Your task to perform on an android device: change notification settings in the gmail app Image 0: 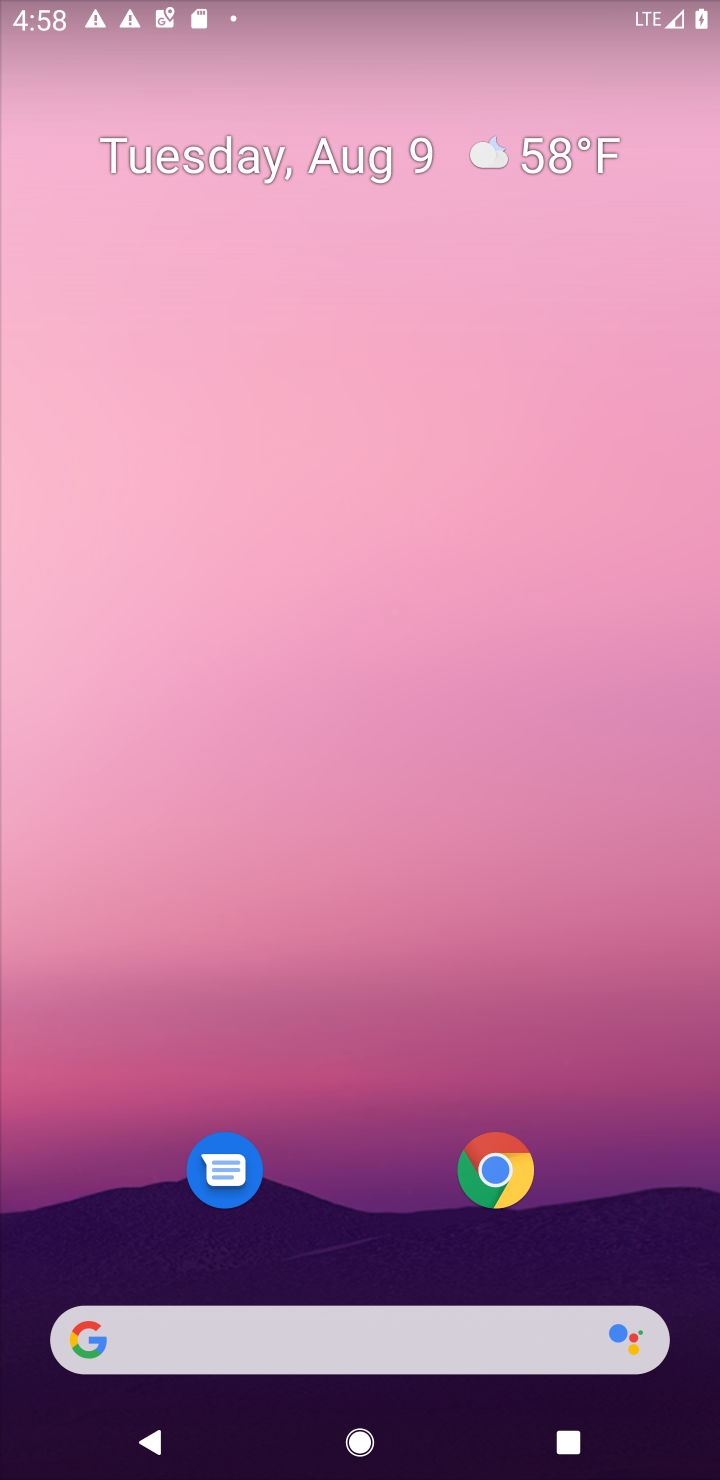
Step 0: press home button
Your task to perform on an android device: change notification settings in the gmail app Image 1: 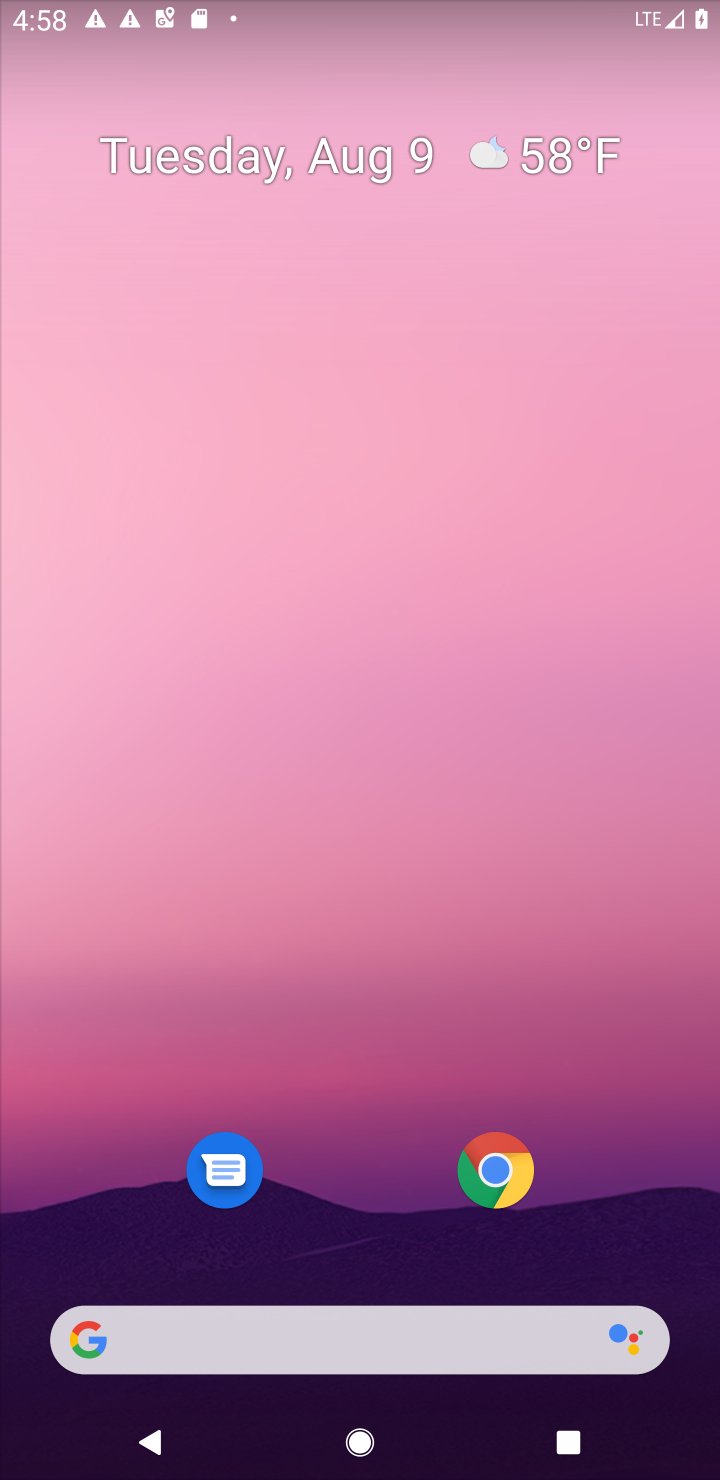
Step 1: drag from (383, 1219) to (690, 317)
Your task to perform on an android device: change notification settings in the gmail app Image 2: 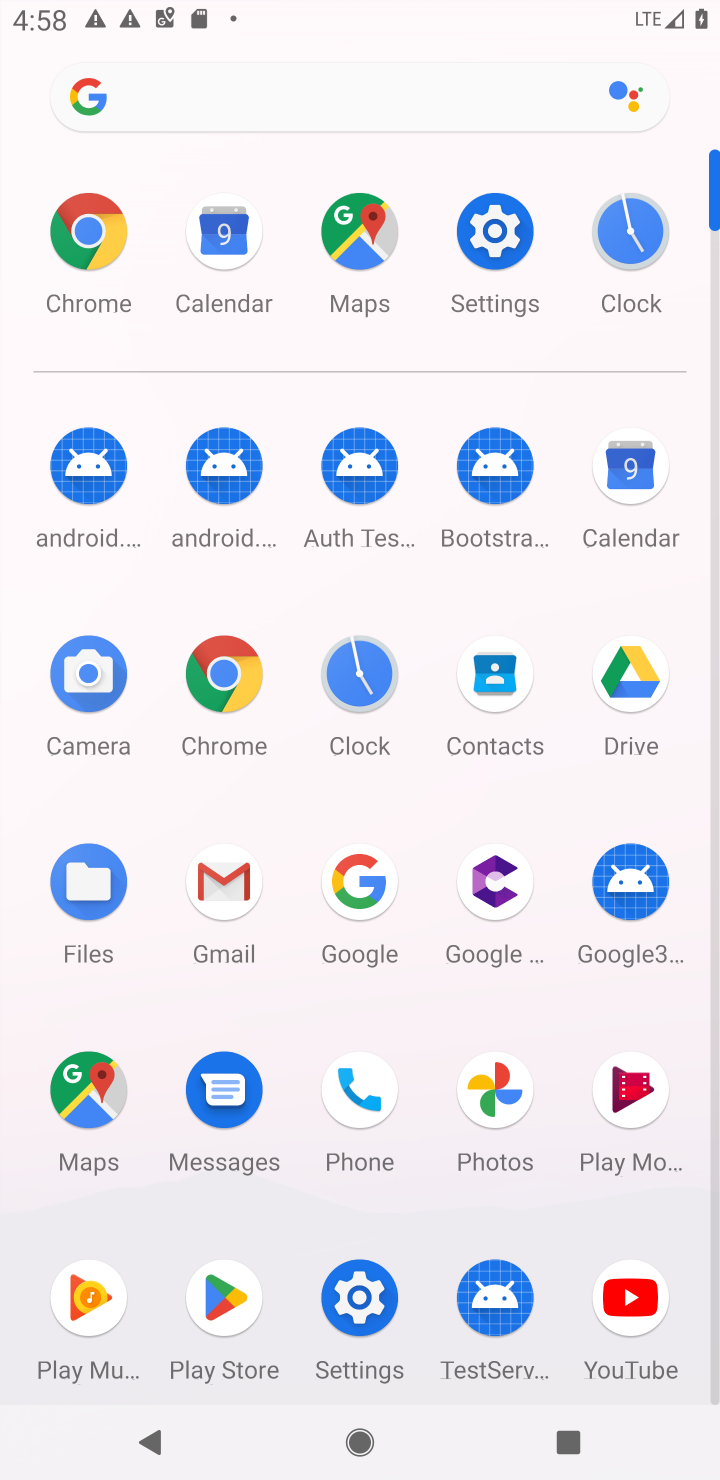
Step 2: click (219, 887)
Your task to perform on an android device: change notification settings in the gmail app Image 3: 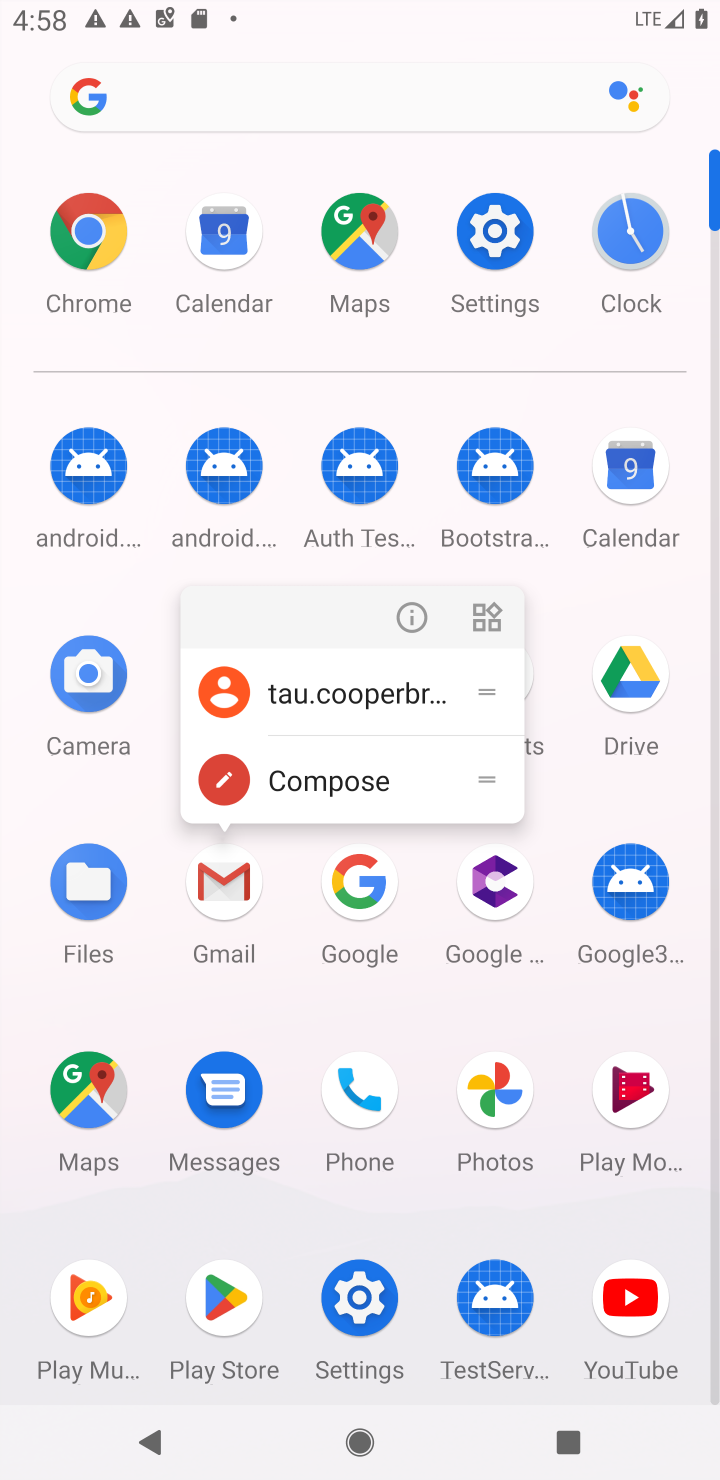
Step 3: click (219, 887)
Your task to perform on an android device: change notification settings in the gmail app Image 4: 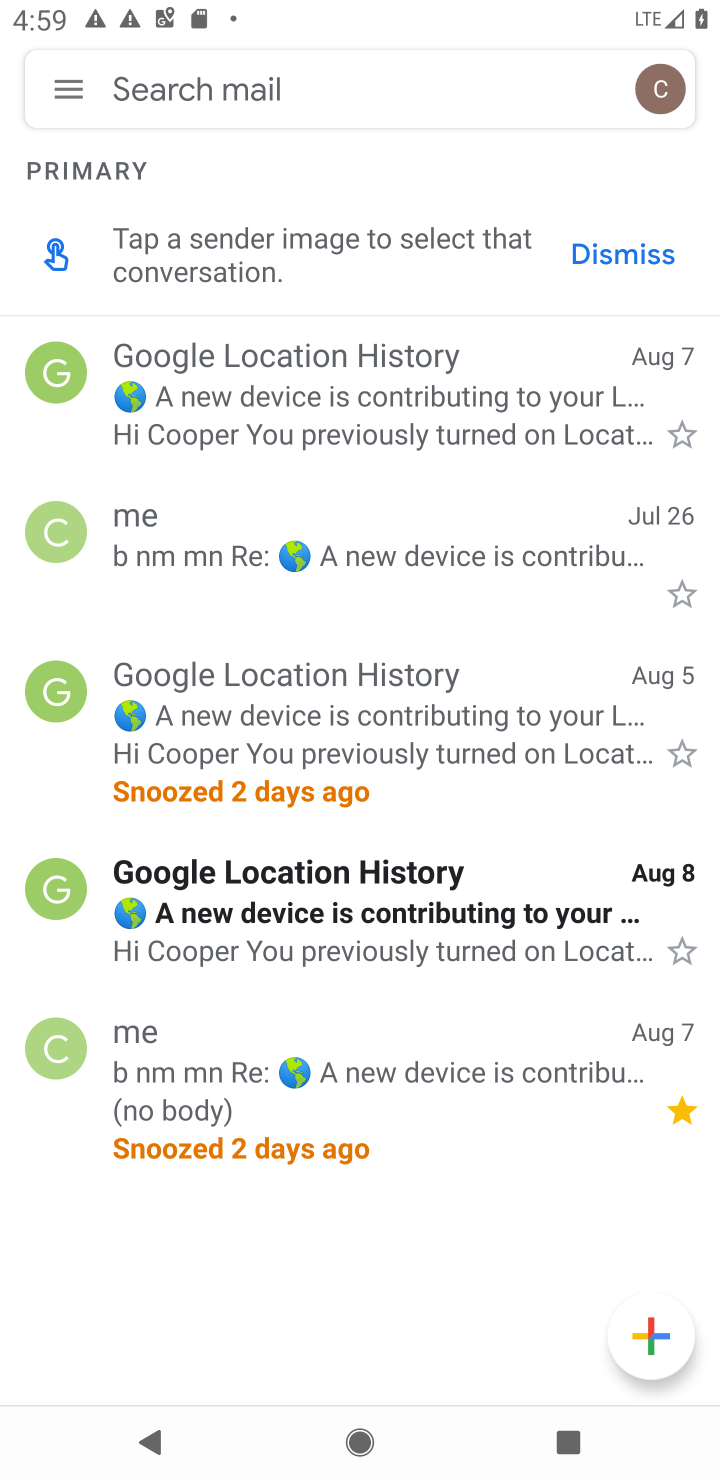
Step 4: click (655, 67)
Your task to perform on an android device: change notification settings in the gmail app Image 5: 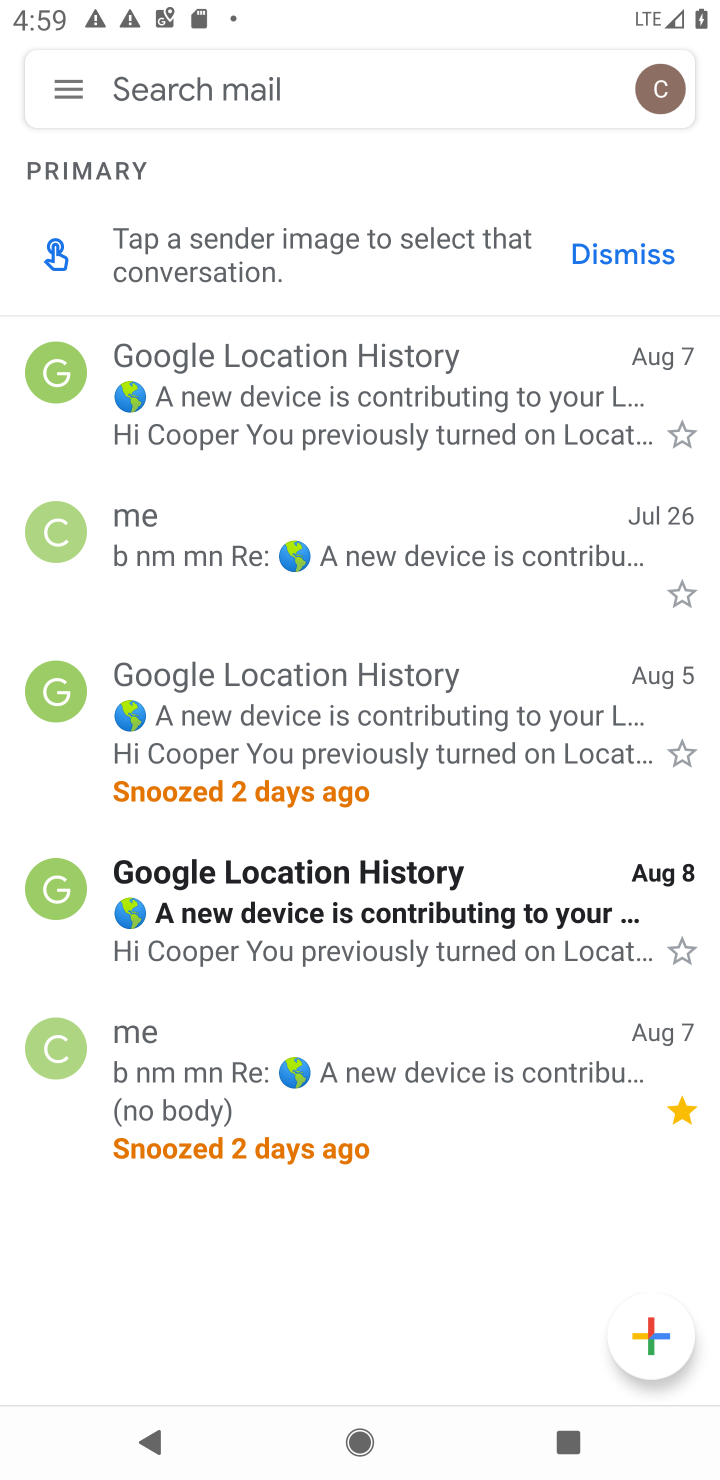
Step 5: click (671, 94)
Your task to perform on an android device: change notification settings in the gmail app Image 6: 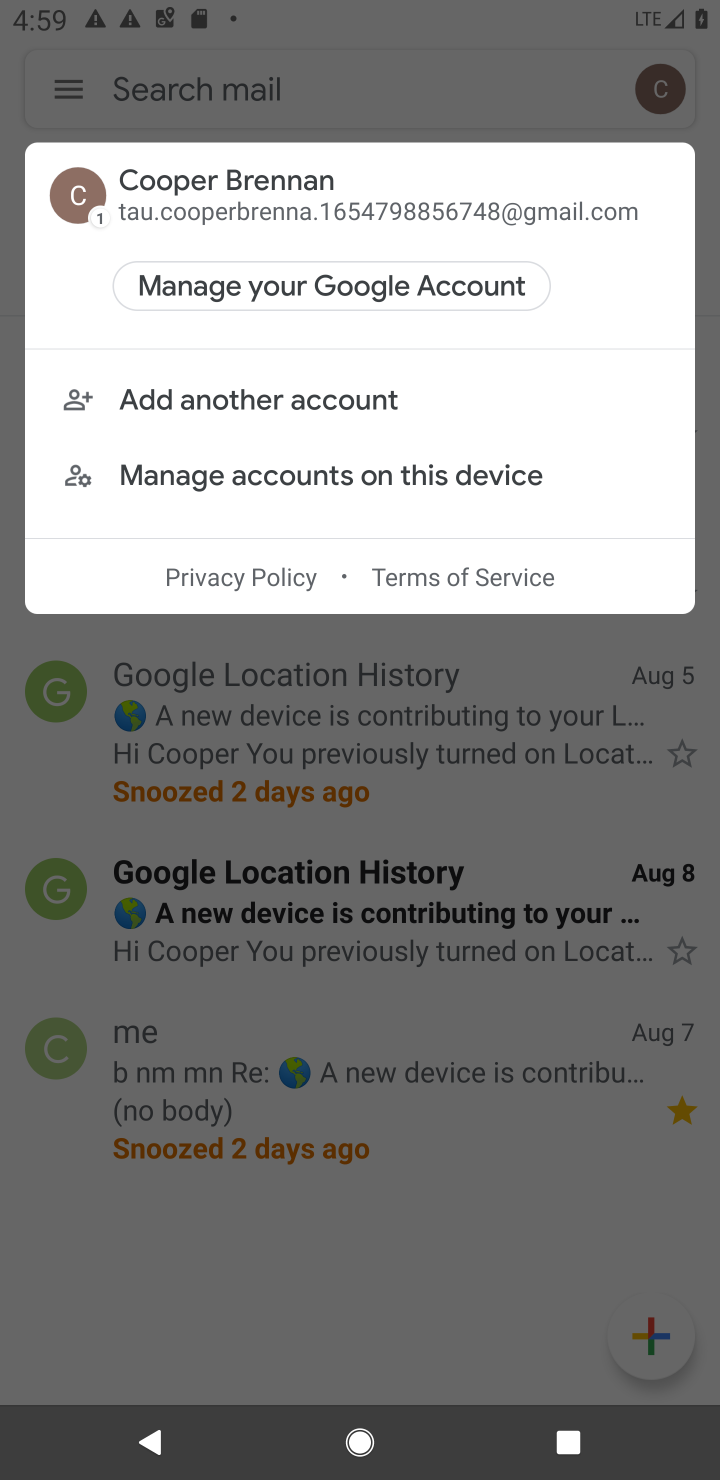
Step 6: click (76, 93)
Your task to perform on an android device: change notification settings in the gmail app Image 7: 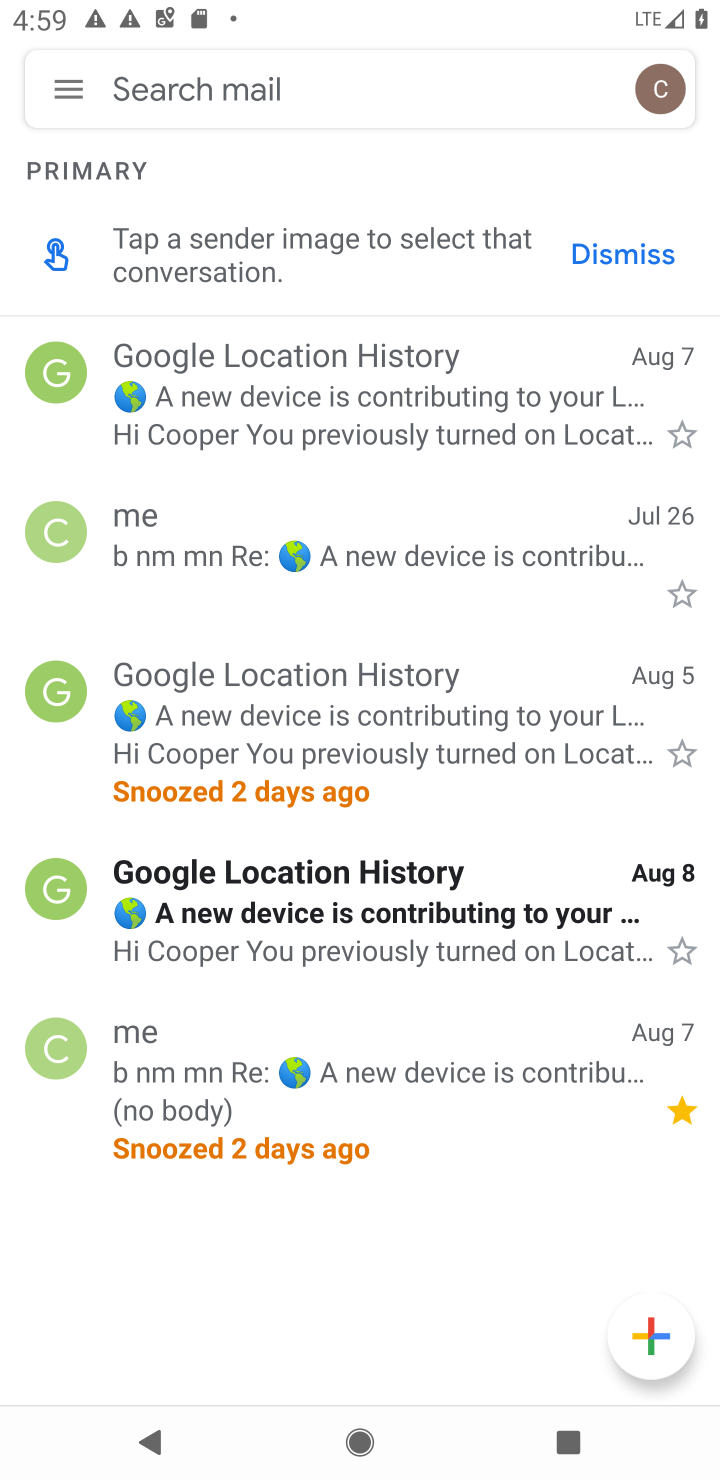
Step 7: click (104, 87)
Your task to perform on an android device: change notification settings in the gmail app Image 8: 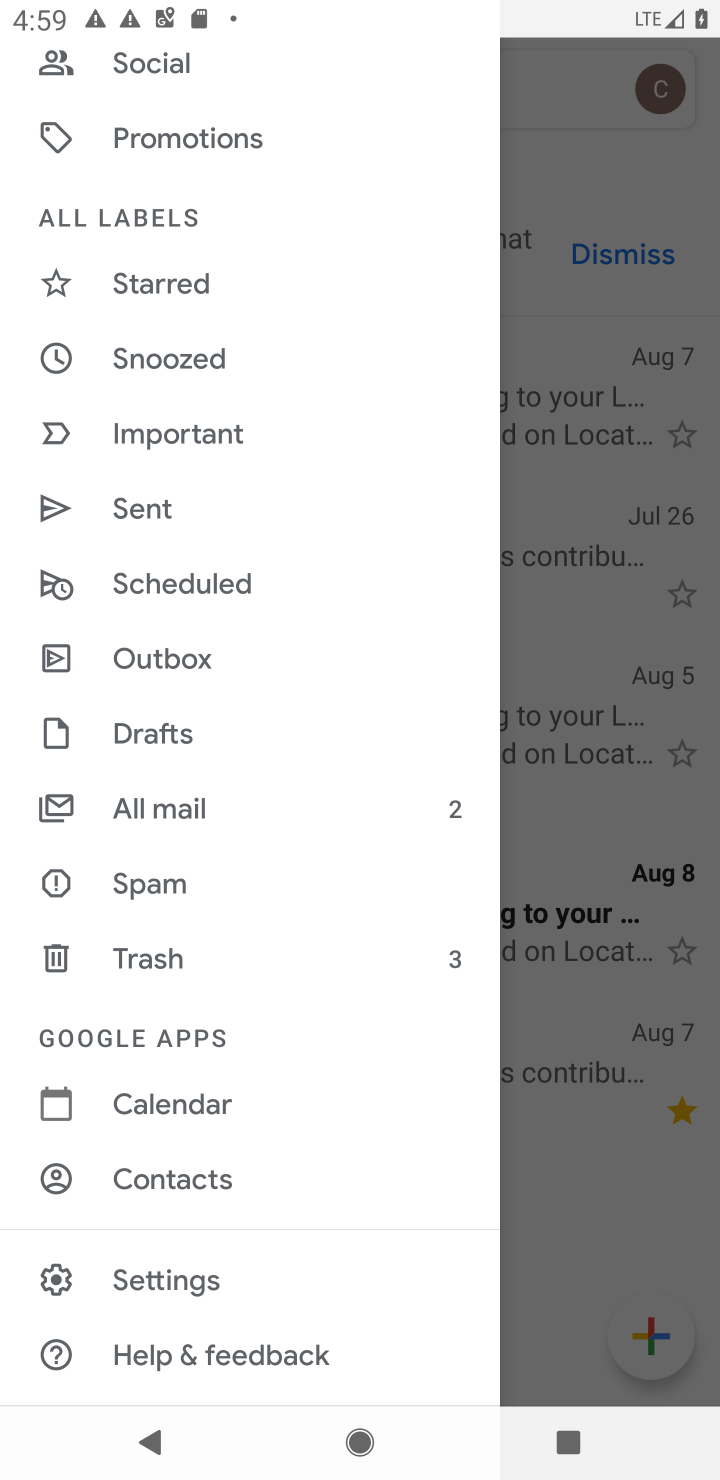
Step 8: click (163, 1278)
Your task to perform on an android device: change notification settings in the gmail app Image 9: 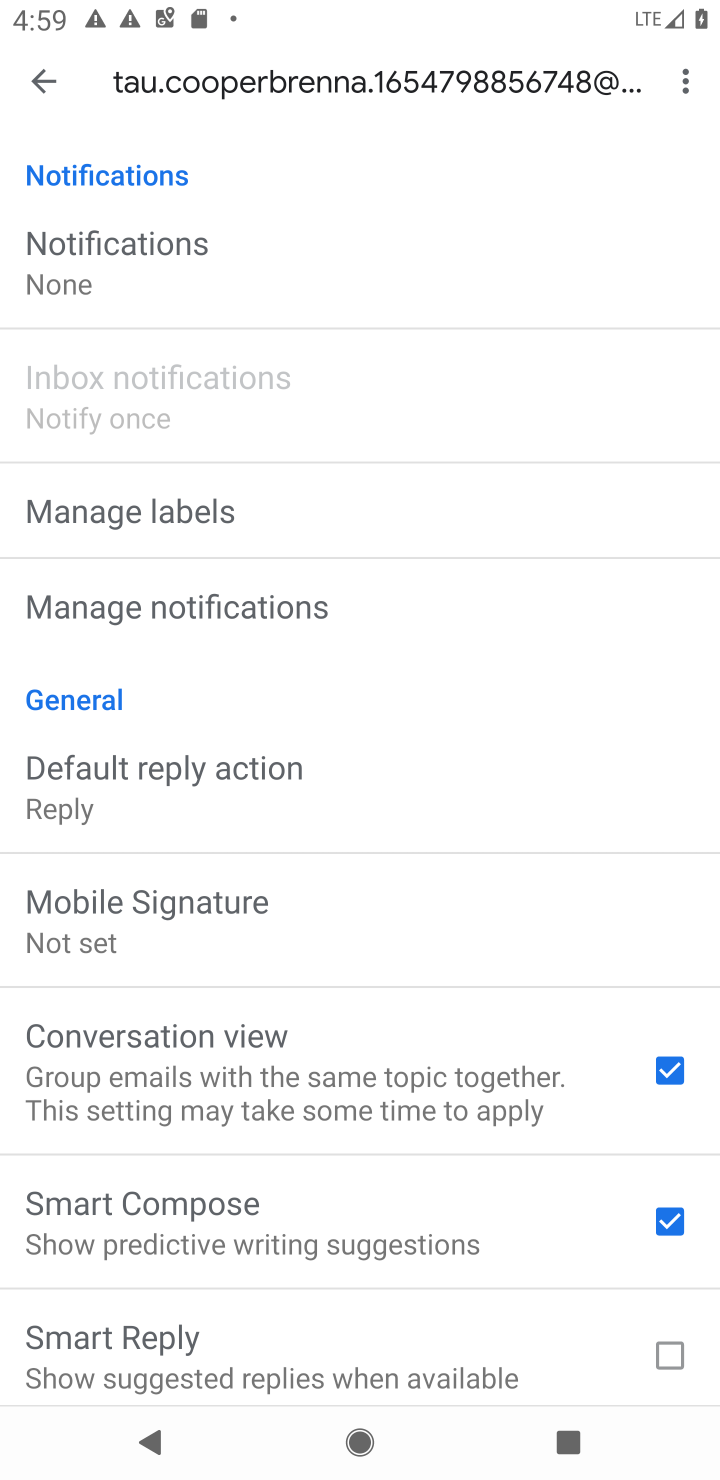
Step 9: click (167, 603)
Your task to perform on an android device: change notification settings in the gmail app Image 10: 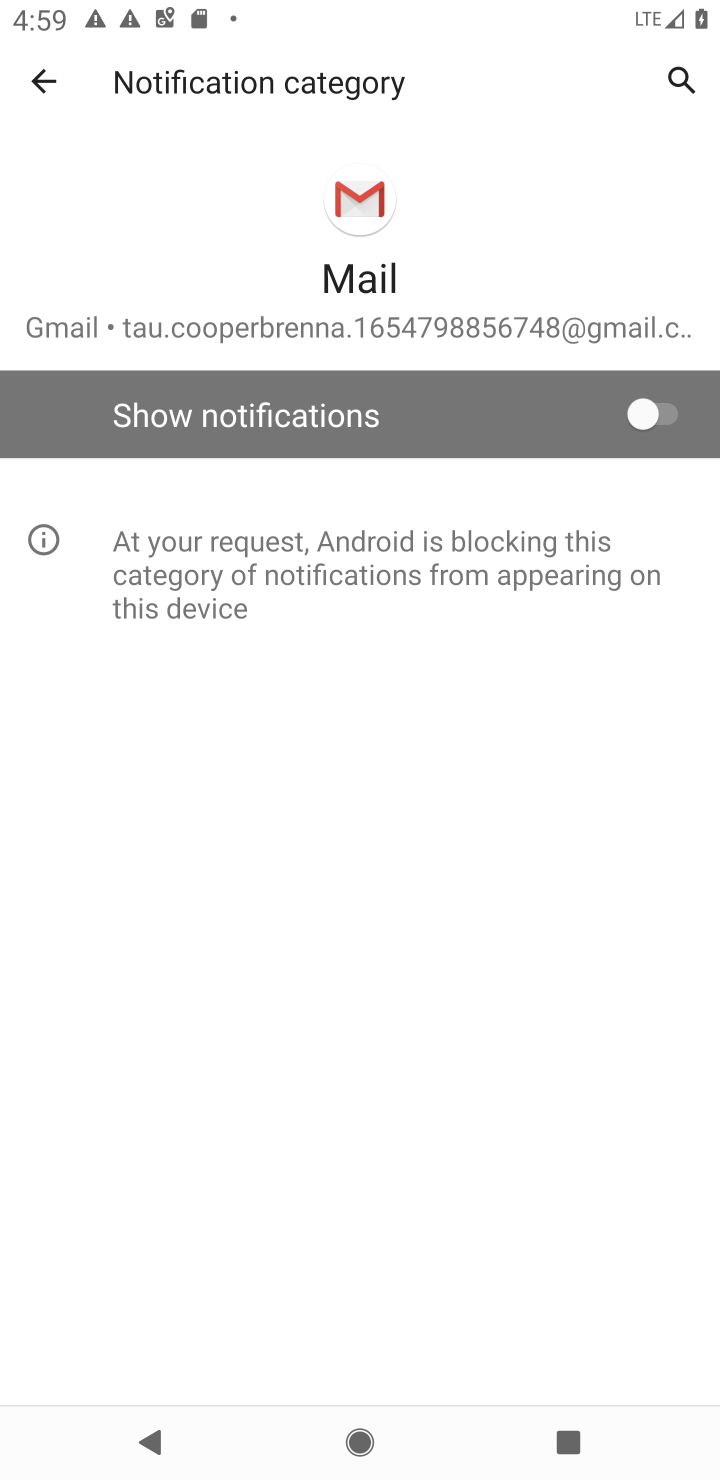
Step 10: click (678, 409)
Your task to perform on an android device: change notification settings in the gmail app Image 11: 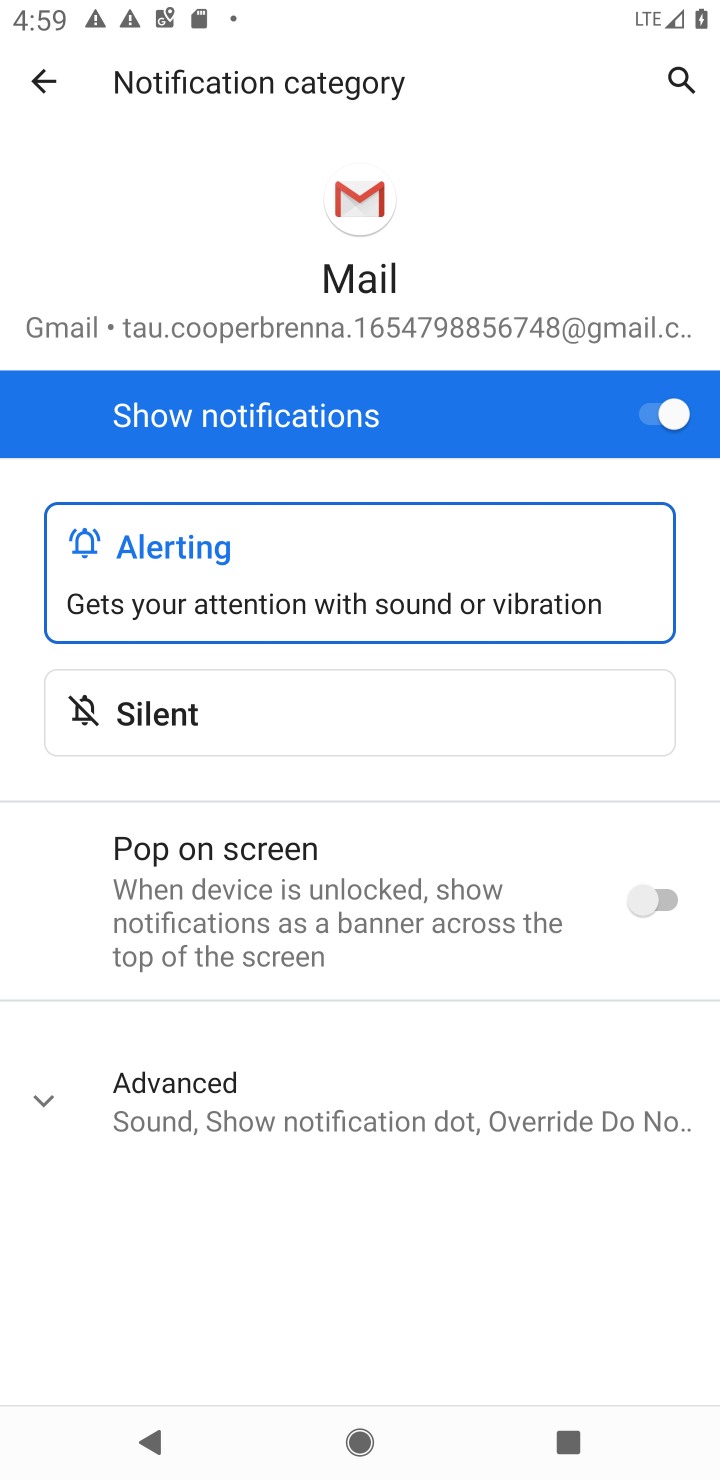
Step 11: task complete